Your task to perform on an android device: see tabs open on other devices in the chrome app Image 0: 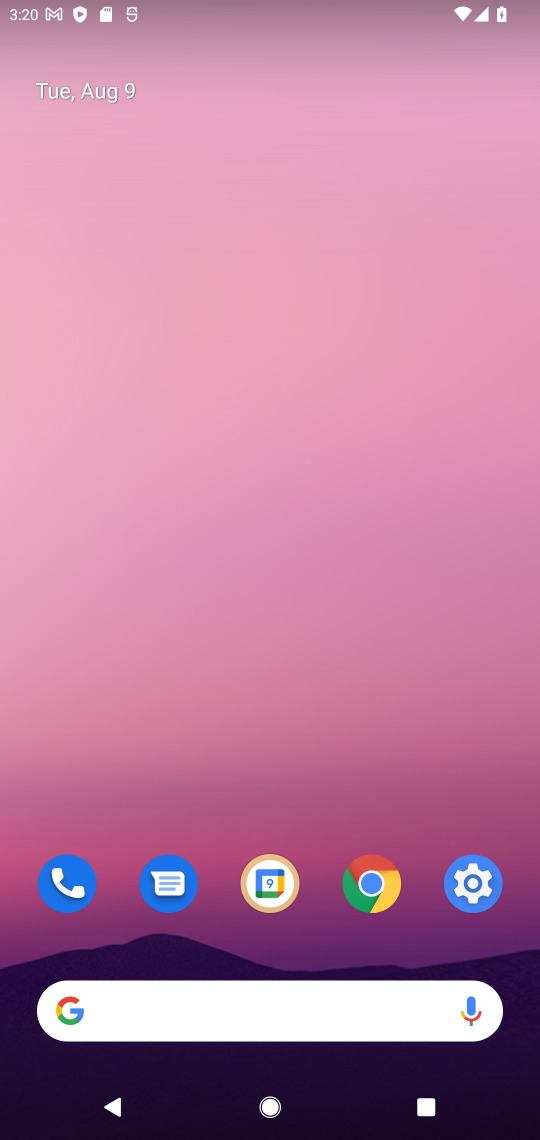
Step 0: drag from (337, 1075) to (258, 265)
Your task to perform on an android device: see tabs open on other devices in the chrome app Image 1: 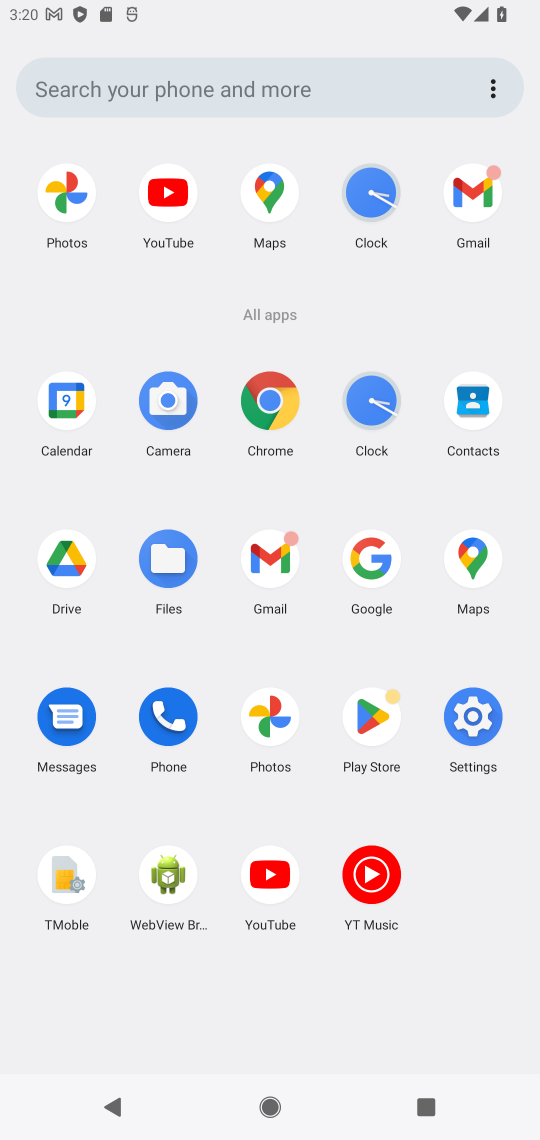
Step 1: click (283, 407)
Your task to perform on an android device: see tabs open on other devices in the chrome app Image 2: 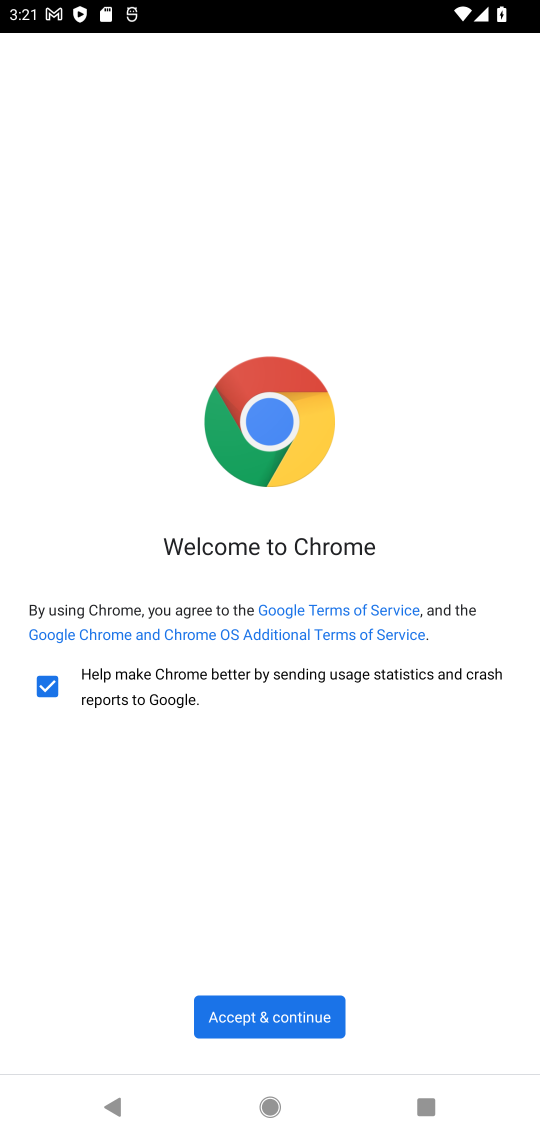
Step 2: click (264, 1013)
Your task to perform on an android device: see tabs open on other devices in the chrome app Image 3: 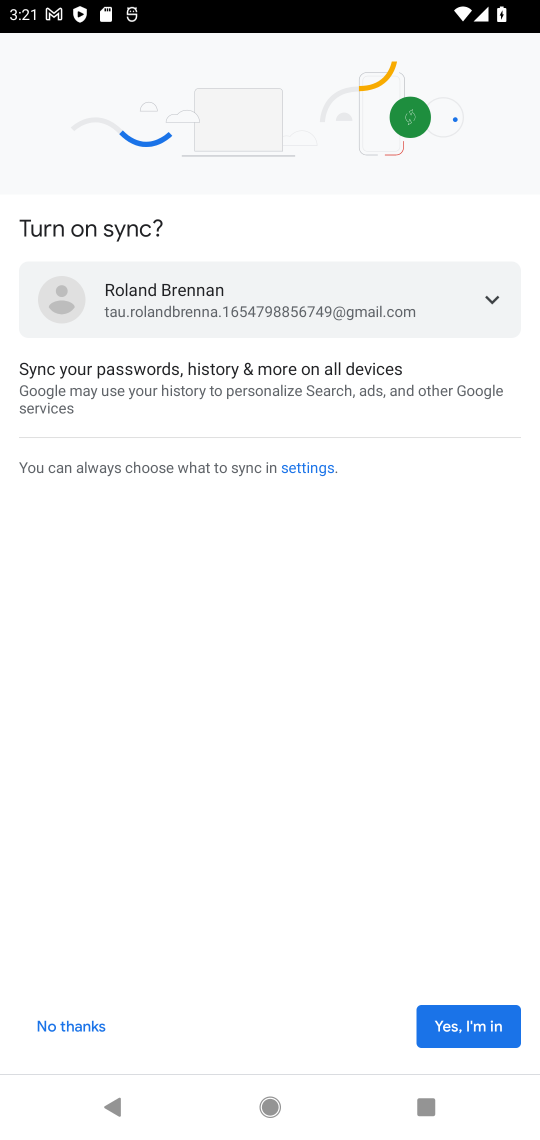
Step 3: click (479, 1035)
Your task to perform on an android device: see tabs open on other devices in the chrome app Image 4: 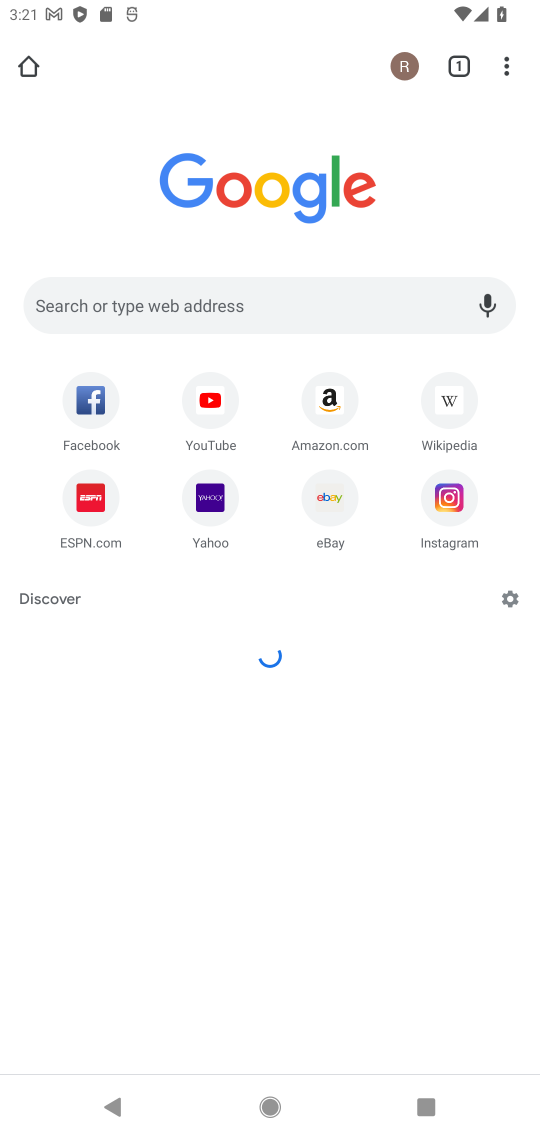
Step 4: click (500, 70)
Your task to perform on an android device: see tabs open on other devices in the chrome app Image 5: 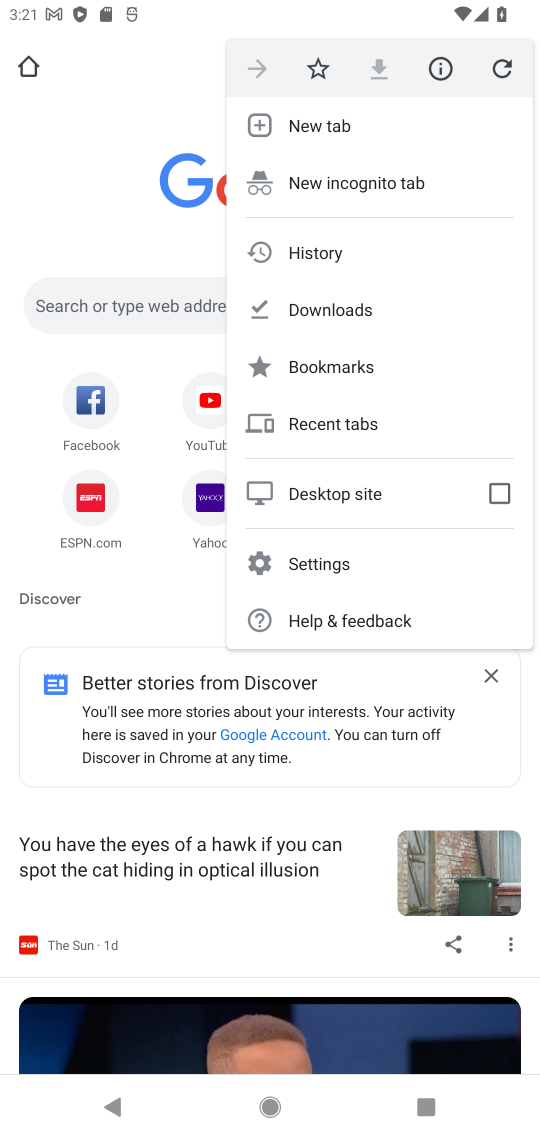
Step 5: click (297, 129)
Your task to perform on an android device: see tabs open on other devices in the chrome app Image 6: 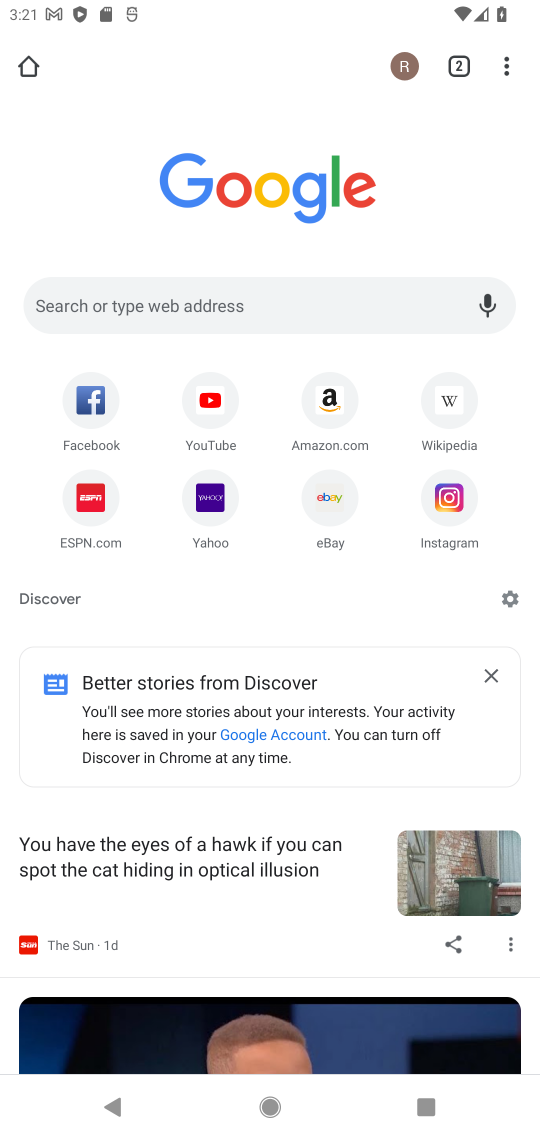
Step 6: task complete